Your task to perform on an android device: change the clock display to analog Image 0: 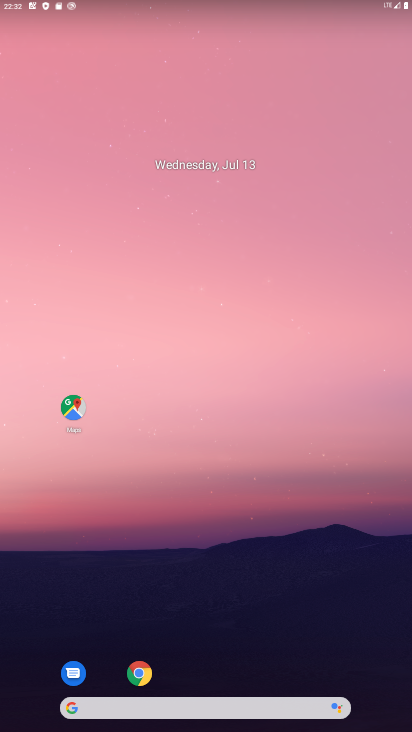
Step 0: drag from (186, 671) to (316, 228)
Your task to perform on an android device: change the clock display to analog Image 1: 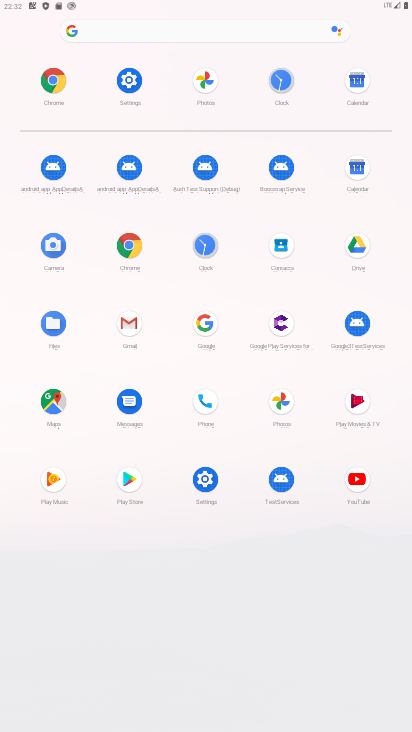
Step 1: click (201, 246)
Your task to perform on an android device: change the clock display to analog Image 2: 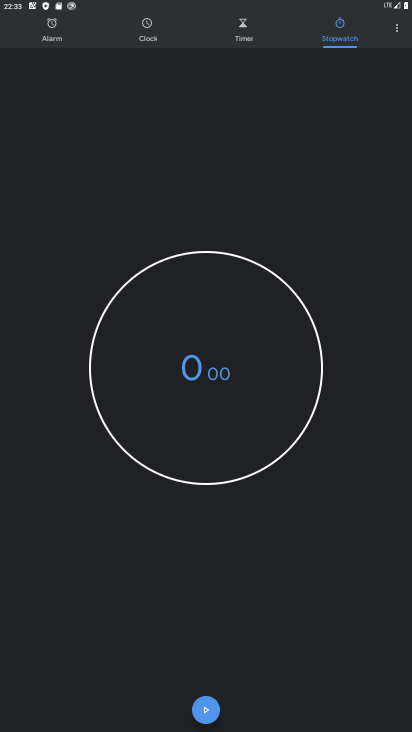
Step 2: click (401, 31)
Your task to perform on an android device: change the clock display to analog Image 3: 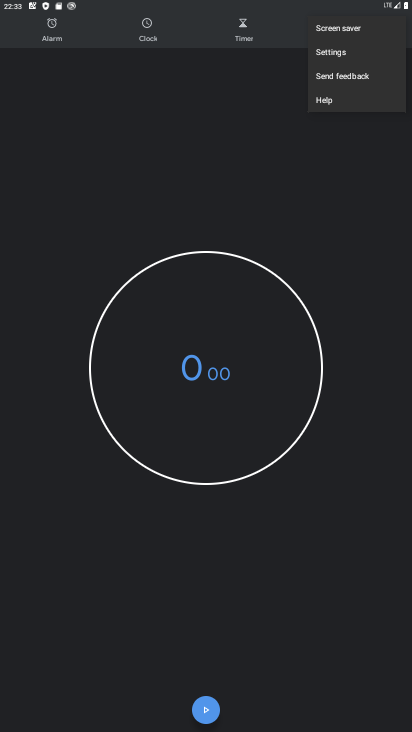
Step 3: click (350, 44)
Your task to perform on an android device: change the clock display to analog Image 4: 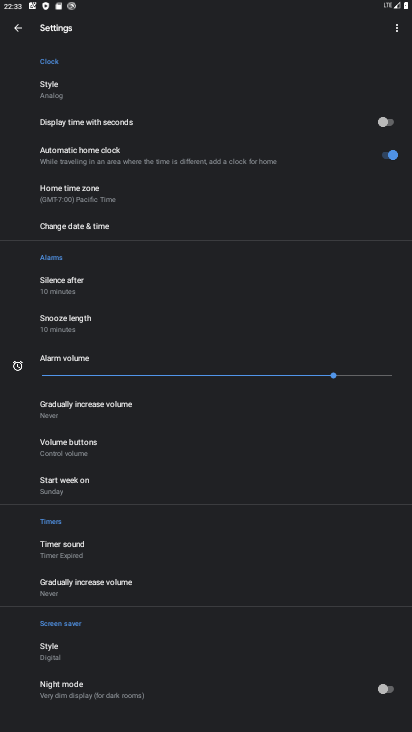
Step 4: click (69, 85)
Your task to perform on an android device: change the clock display to analog Image 5: 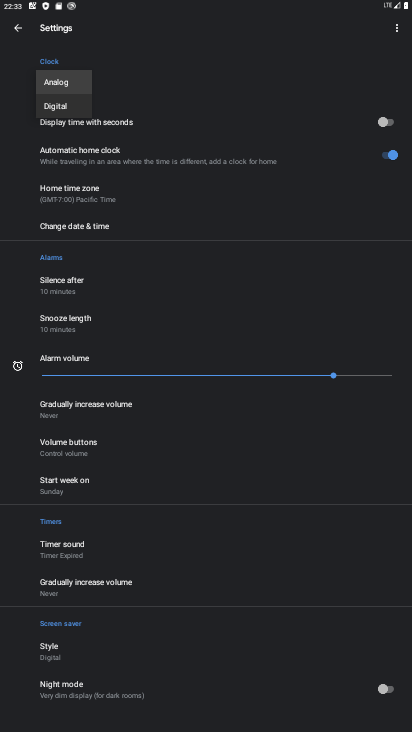
Step 5: click (68, 95)
Your task to perform on an android device: change the clock display to analog Image 6: 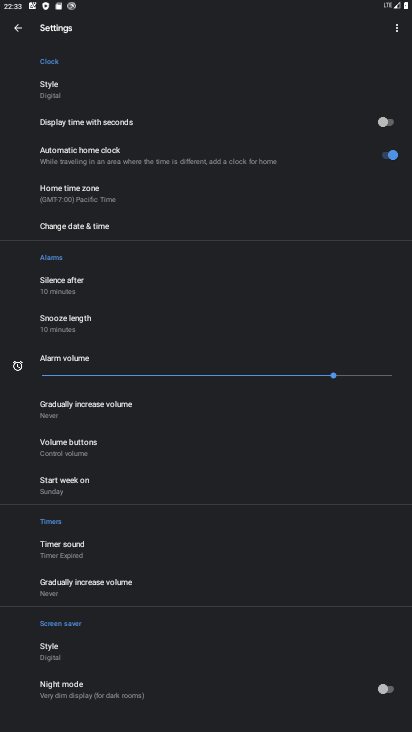
Step 6: click (65, 77)
Your task to perform on an android device: change the clock display to analog Image 7: 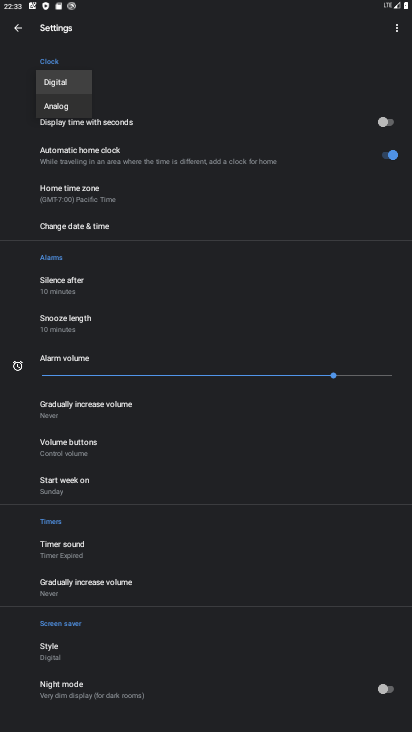
Step 7: click (63, 75)
Your task to perform on an android device: change the clock display to analog Image 8: 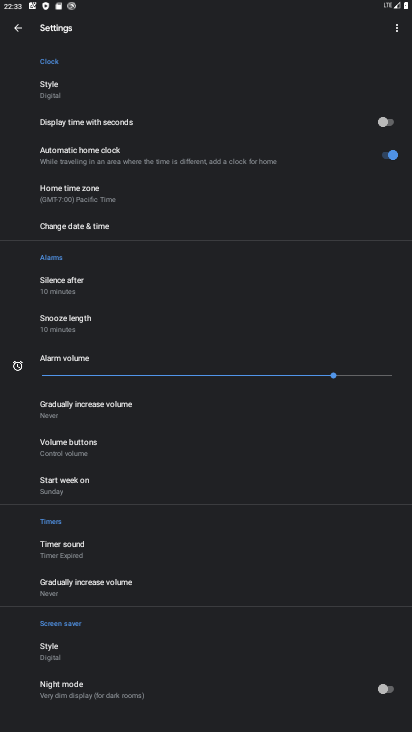
Step 8: click (36, 88)
Your task to perform on an android device: change the clock display to analog Image 9: 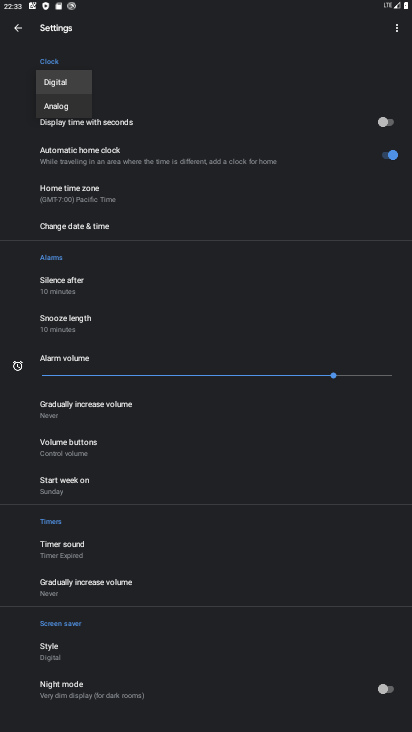
Step 9: click (81, 103)
Your task to perform on an android device: change the clock display to analog Image 10: 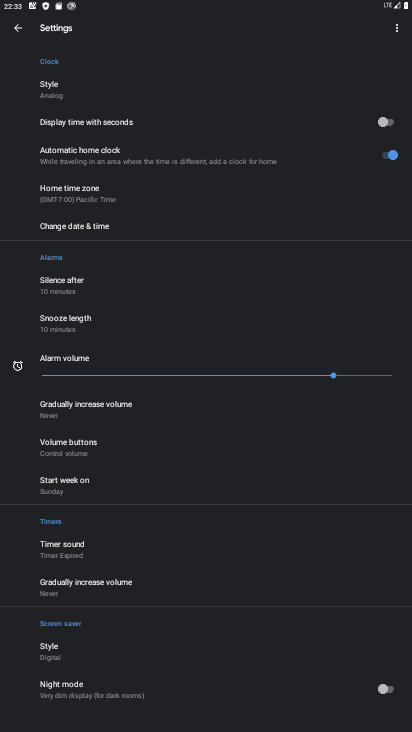
Step 10: task complete